Your task to perform on an android device: Toggle the flashlight Image 0: 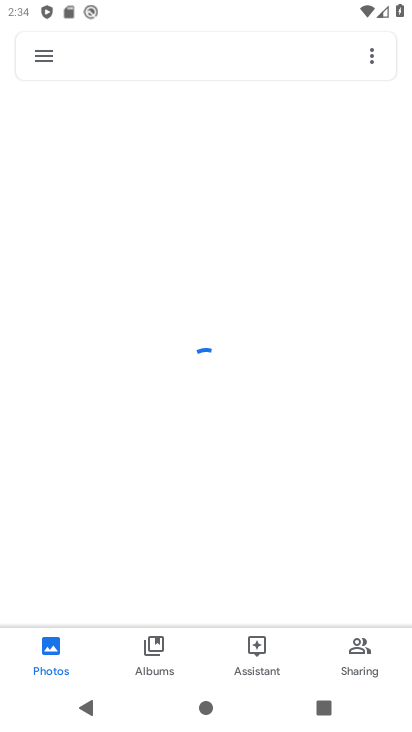
Step 0: press home button
Your task to perform on an android device: Toggle the flashlight Image 1: 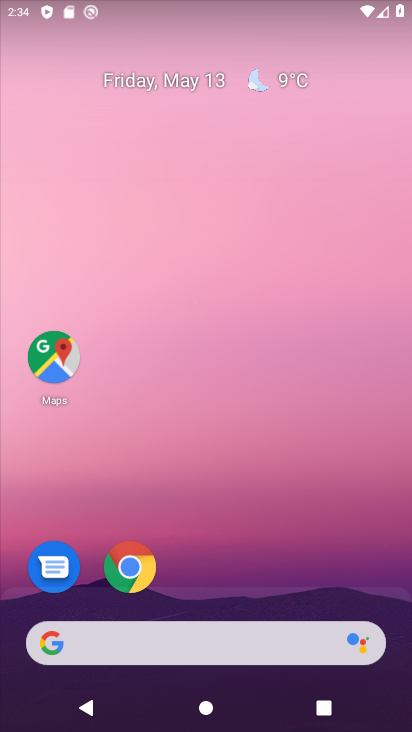
Step 1: drag from (319, 414) to (315, 22)
Your task to perform on an android device: Toggle the flashlight Image 2: 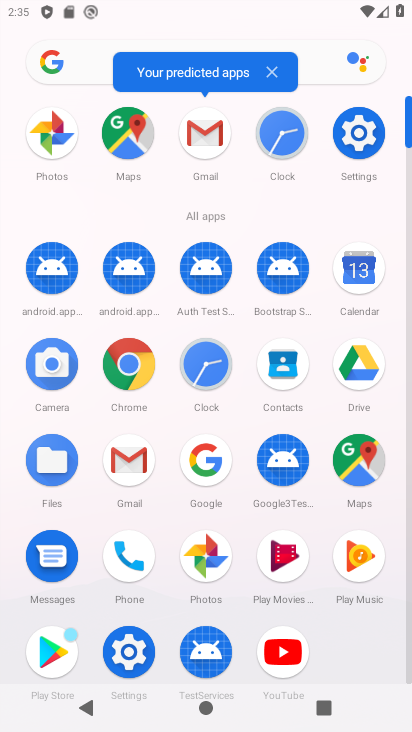
Step 2: click (355, 150)
Your task to perform on an android device: Toggle the flashlight Image 3: 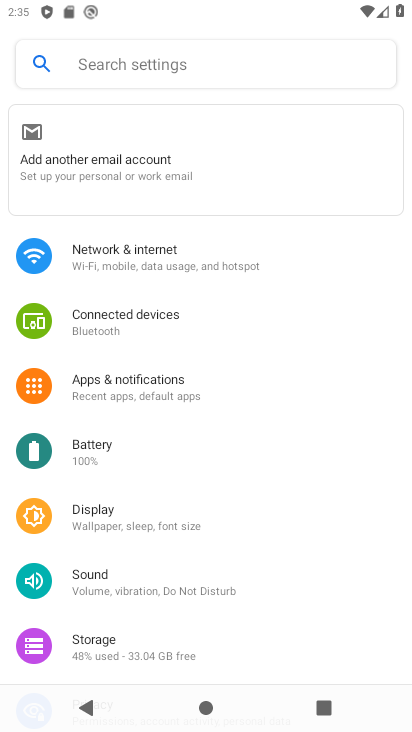
Step 3: click (152, 62)
Your task to perform on an android device: Toggle the flashlight Image 4: 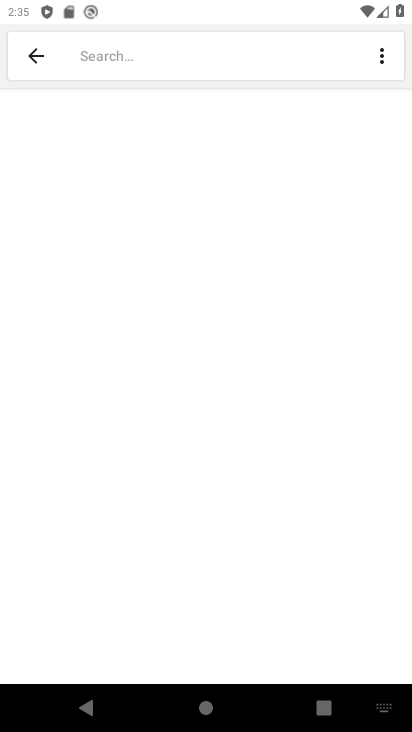
Step 4: click (135, 62)
Your task to perform on an android device: Toggle the flashlight Image 5: 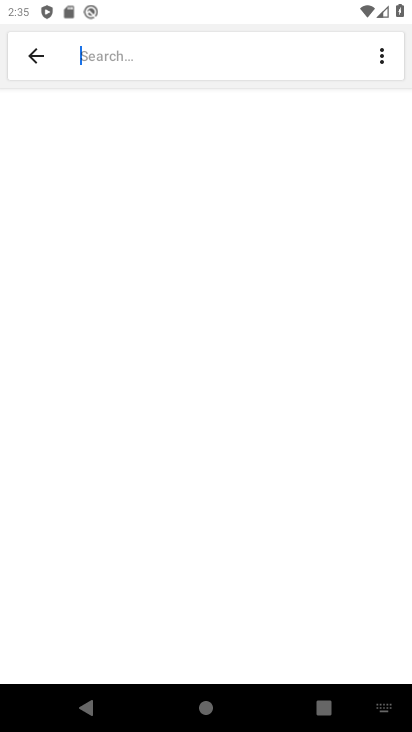
Step 5: type "flashlight"
Your task to perform on an android device: Toggle the flashlight Image 6: 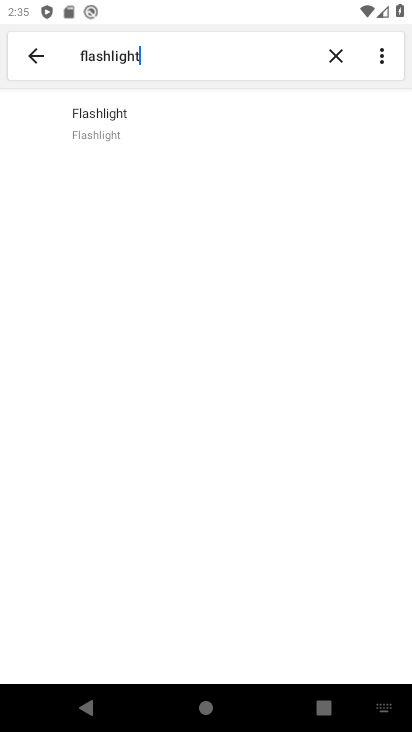
Step 6: click (121, 130)
Your task to perform on an android device: Toggle the flashlight Image 7: 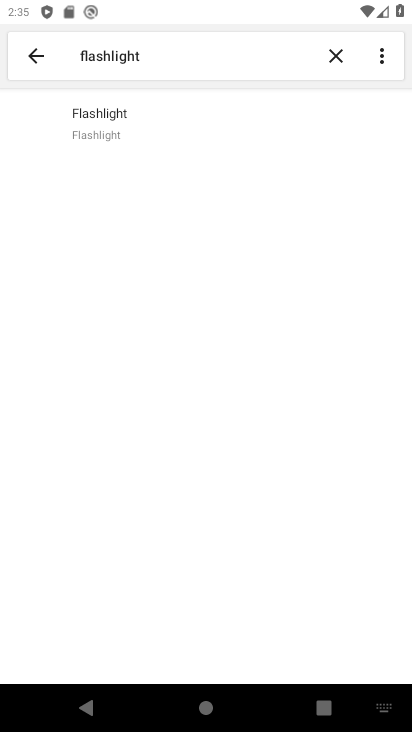
Step 7: click (114, 125)
Your task to perform on an android device: Toggle the flashlight Image 8: 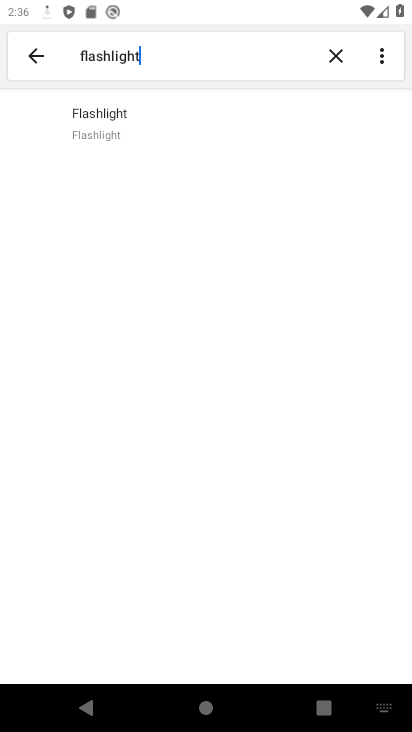
Step 8: task complete